Your task to perform on an android device: When is my next meeting? Image 0: 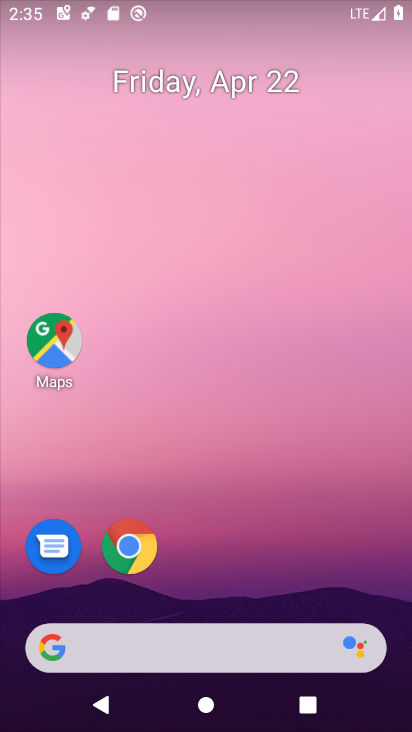
Step 0: drag from (201, 632) to (309, 61)
Your task to perform on an android device: When is my next meeting? Image 1: 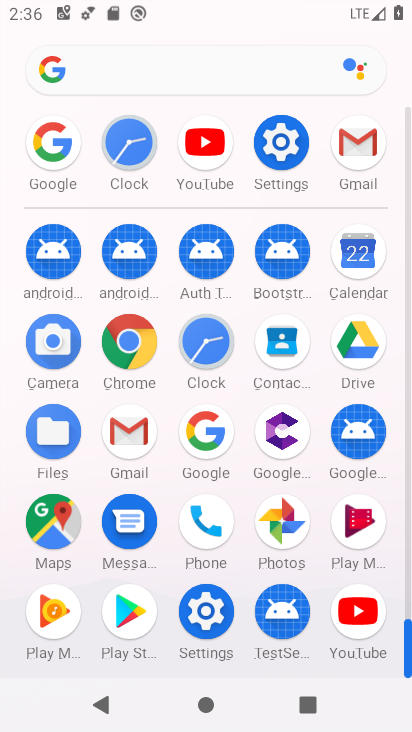
Step 1: click (358, 265)
Your task to perform on an android device: When is my next meeting? Image 2: 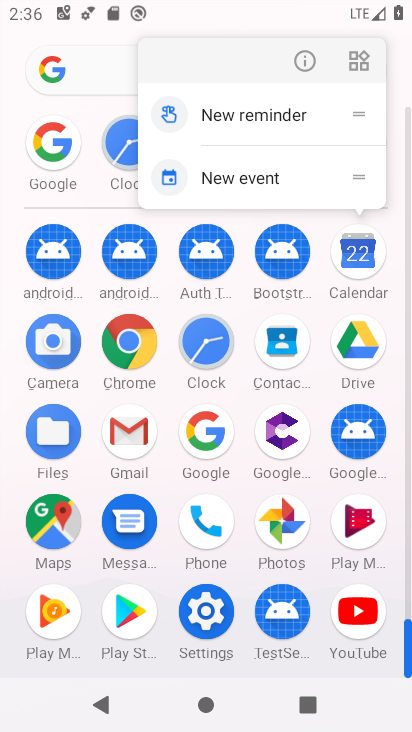
Step 2: click (379, 272)
Your task to perform on an android device: When is my next meeting? Image 3: 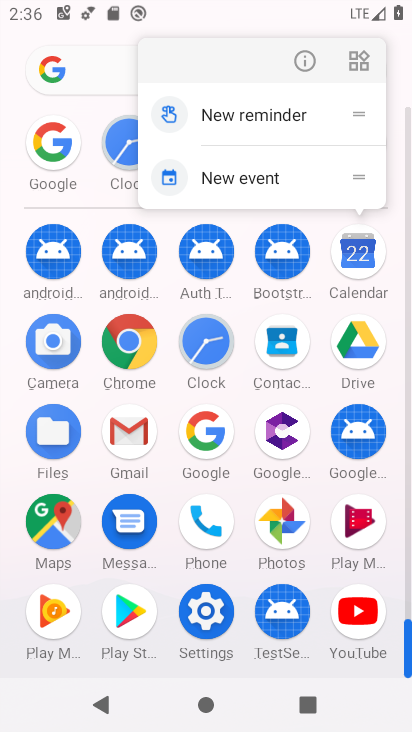
Step 3: click (333, 272)
Your task to perform on an android device: When is my next meeting? Image 4: 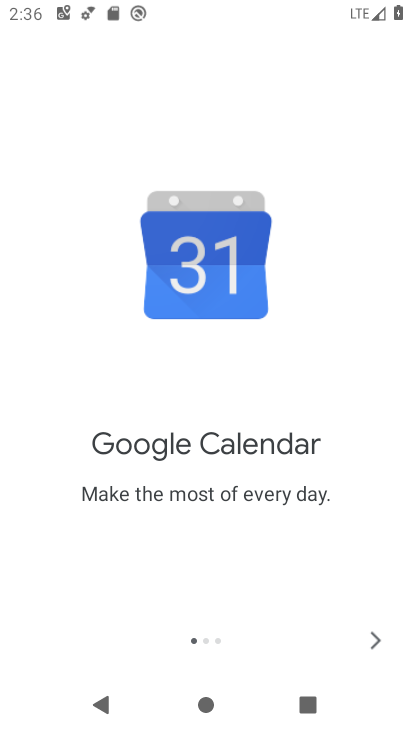
Step 4: click (379, 638)
Your task to perform on an android device: When is my next meeting? Image 5: 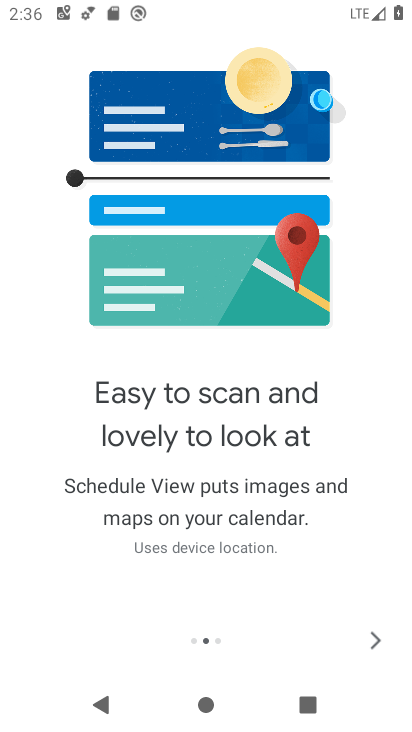
Step 5: click (377, 642)
Your task to perform on an android device: When is my next meeting? Image 6: 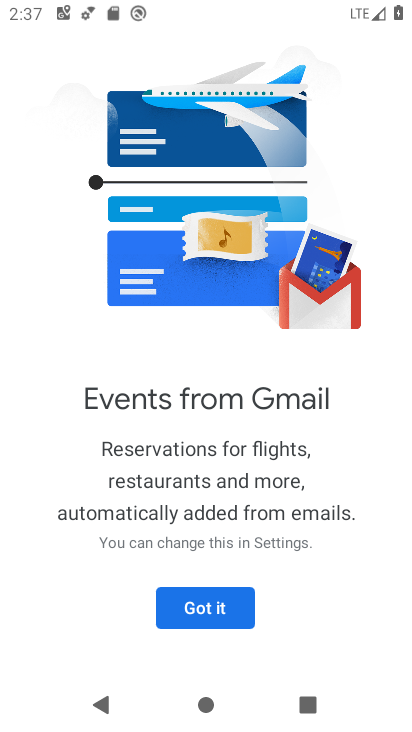
Step 6: click (211, 615)
Your task to perform on an android device: When is my next meeting? Image 7: 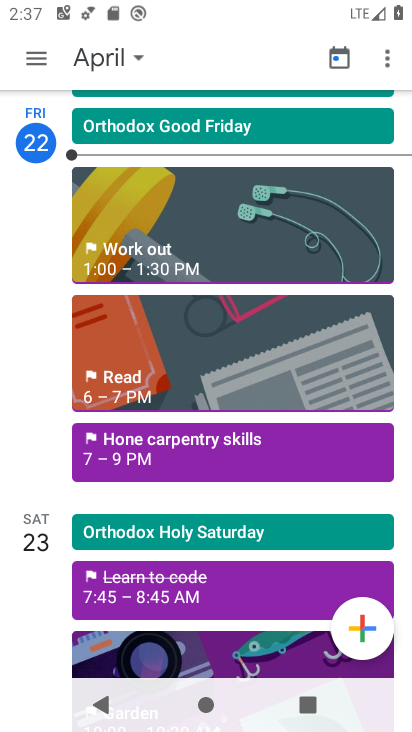
Step 7: task complete